Your task to perform on an android device: turn on translation in the chrome app Image 0: 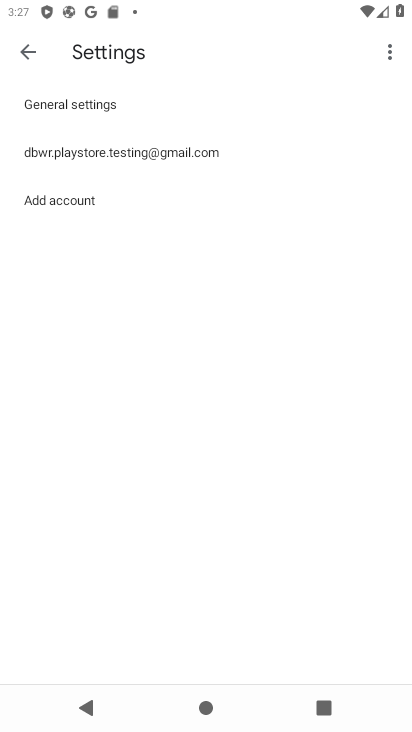
Step 0: press home button
Your task to perform on an android device: turn on translation in the chrome app Image 1: 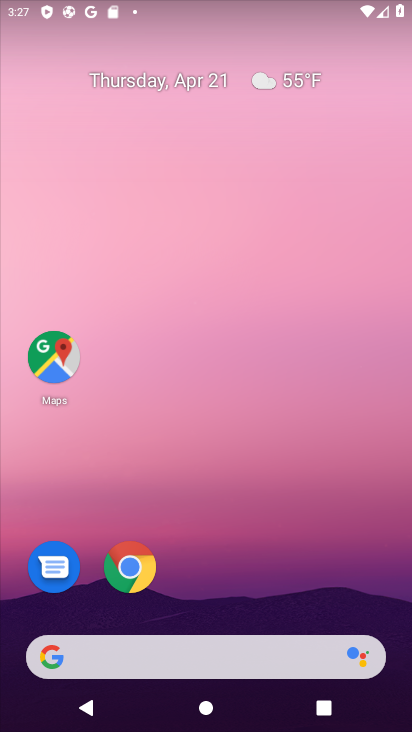
Step 1: drag from (225, 608) to (241, 57)
Your task to perform on an android device: turn on translation in the chrome app Image 2: 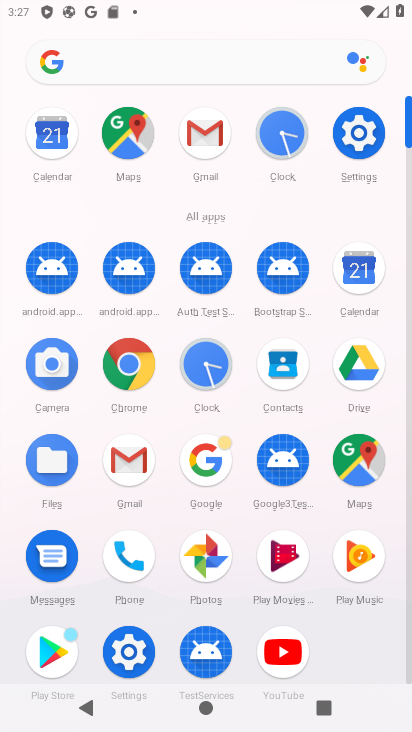
Step 2: click (126, 359)
Your task to perform on an android device: turn on translation in the chrome app Image 3: 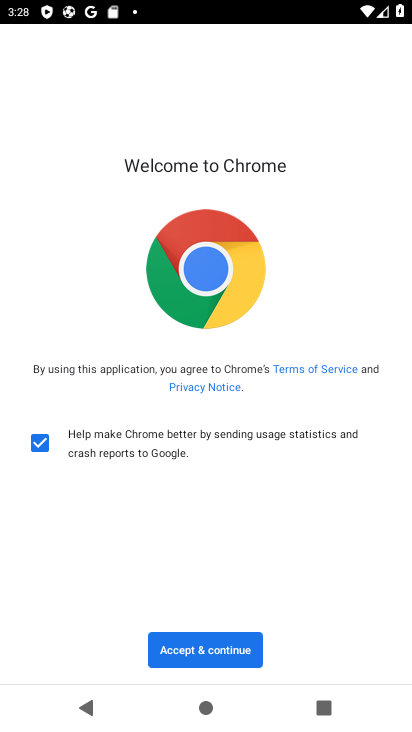
Step 3: click (197, 646)
Your task to perform on an android device: turn on translation in the chrome app Image 4: 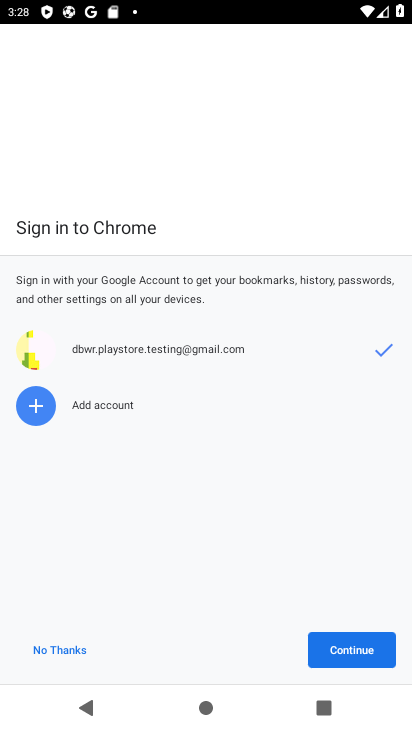
Step 4: click (347, 646)
Your task to perform on an android device: turn on translation in the chrome app Image 5: 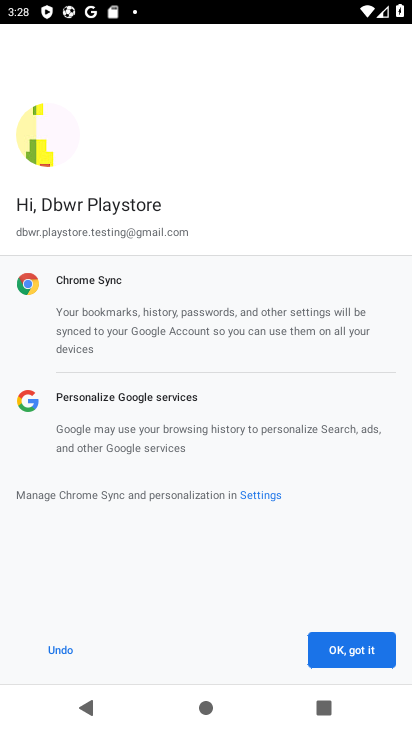
Step 5: click (349, 644)
Your task to perform on an android device: turn on translation in the chrome app Image 6: 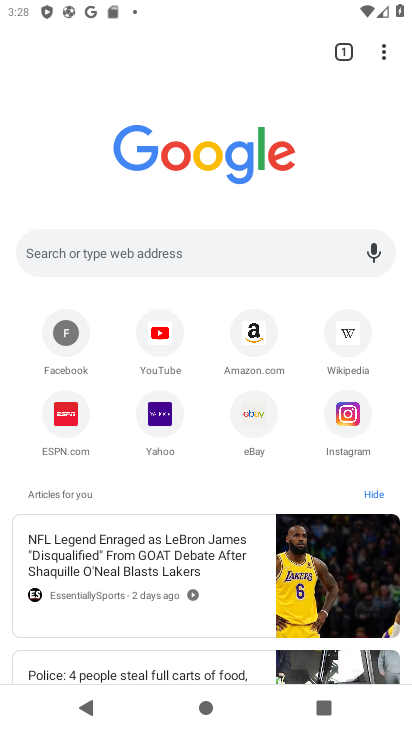
Step 6: click (380, 53)
Your task to perform on an android device: turn on translation in the chrome app Image 7: 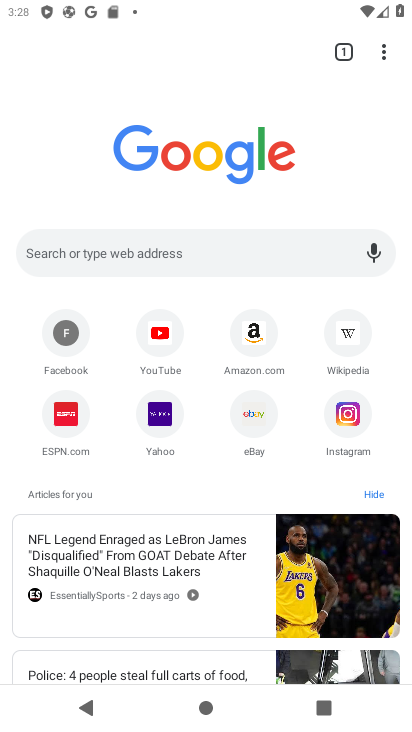
Step 7: click (380, 47)
Your task to perform on an android device: turn on translation in the chrome app Image 8: 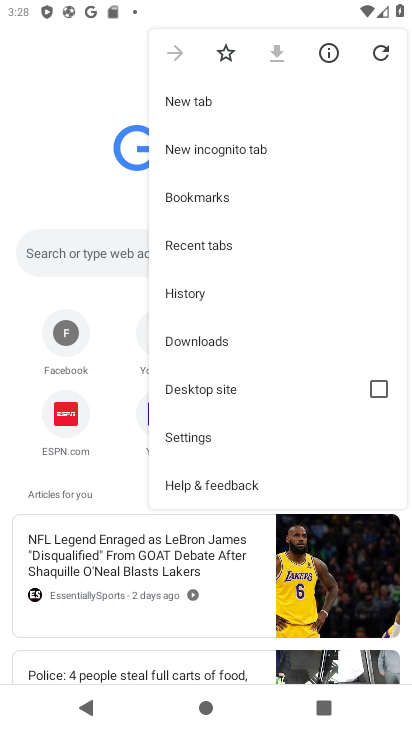
Step 8: click (219, 434)
Your task to perform on an android device: turn on translation in the chrome app Image 9: 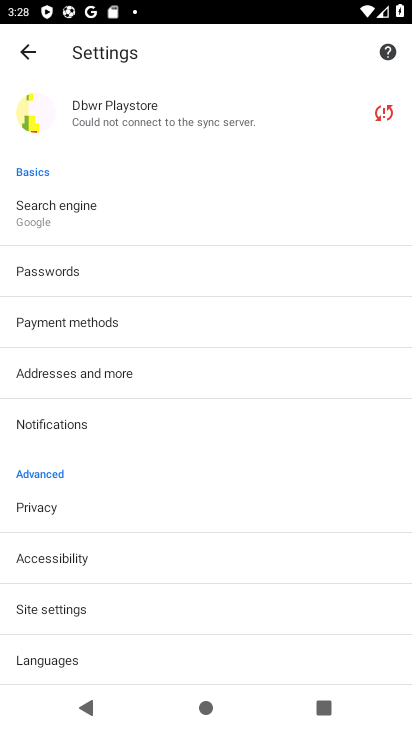
Step 9: click (107, 656)
Your task to perform on an android device: turn on translation in the chrome app Image 10: 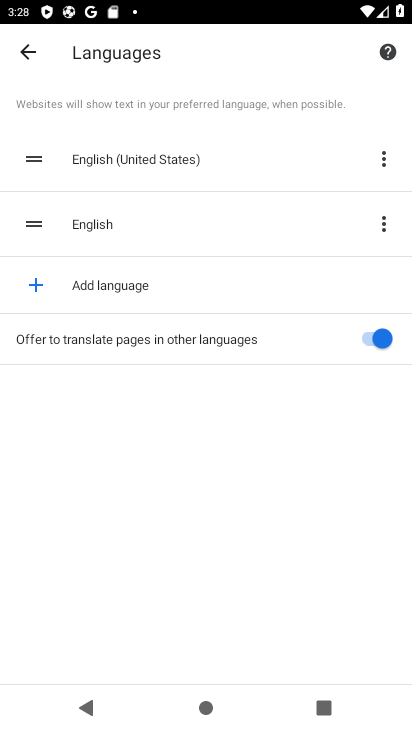
Step 10: task complete